Your task to perform on an android device: Open Google Chrome Image 0: 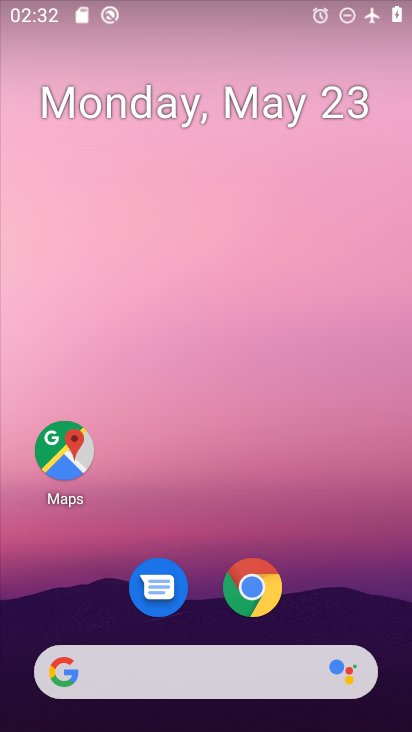
Step 0: click (231, 607)
Your task to perform on an android device: Open Google Chrome Image 1: 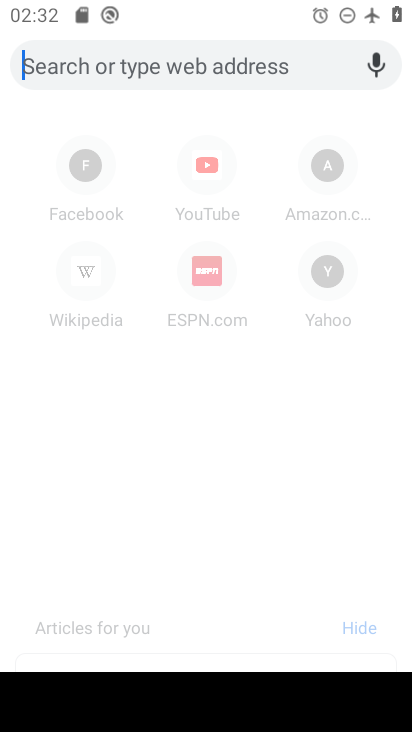
Step 1: task complete